Your task to perform on an android device: clear history in the chrome app Image 0: 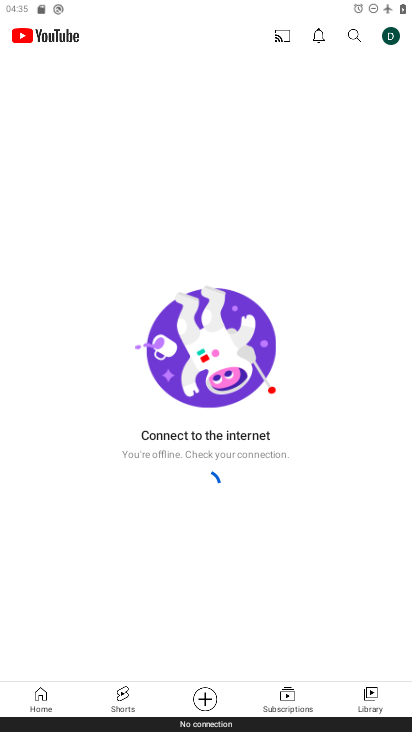
Step 0: press home button
Your task to perform on an android device: clear history in the chrome app Image 1: 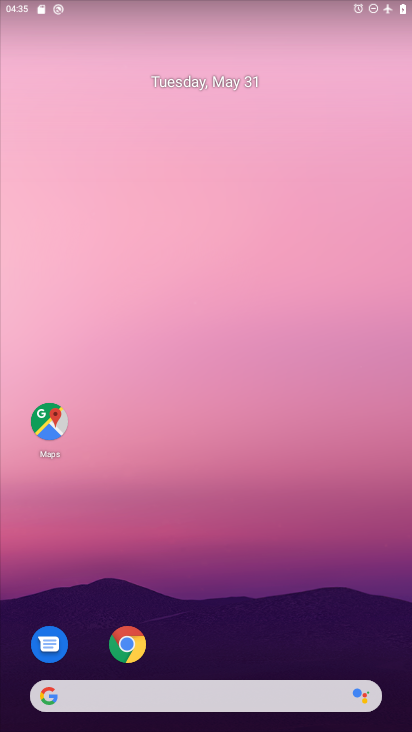
Step 1: click (127, 644)
Your task to perform on an android device: clear history in the chrome app Image 2: 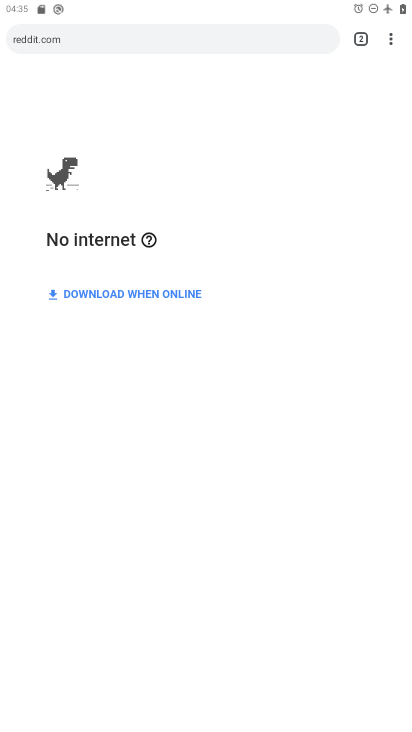
Step 2: drag from (394, 36) to (264, 233)
Your task to perform on an android device: clear history in the chrome app Image 3: 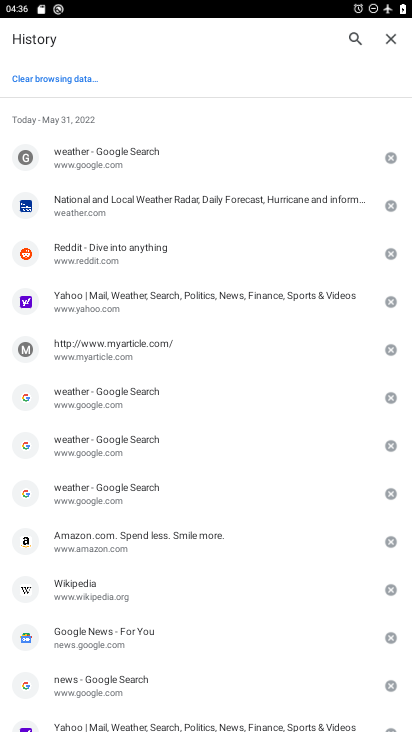
Step 3: click (81, 89)
Your task to perform on an android device: clear history in the chrome app Image 4: 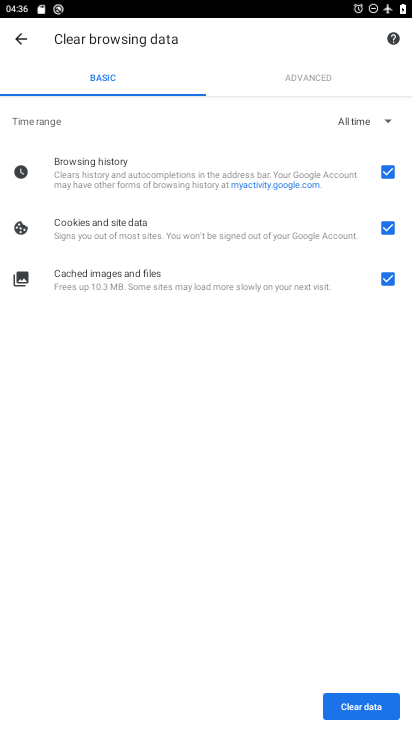
Step 4: click (359, 703)
Your task to perform on an android device: clear history in the chrome app Image 5: 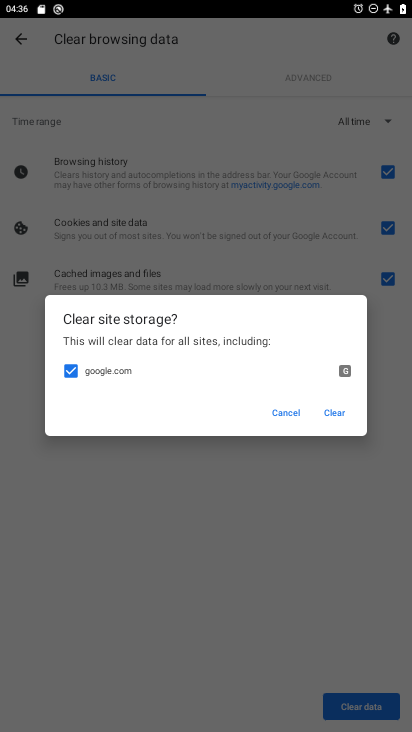
Step 5: click (327, 408)
Your task to perform on an android device: clear history in the chrome app Image 6: 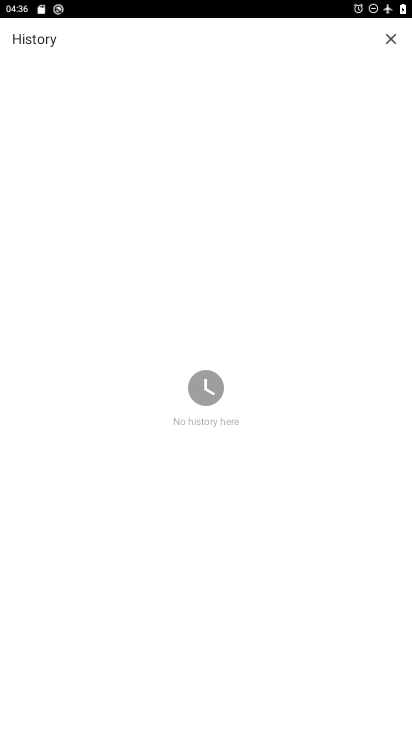
Step 6: task complete